Your task to perform on an android device: change your default location settings in chrome Image 0: 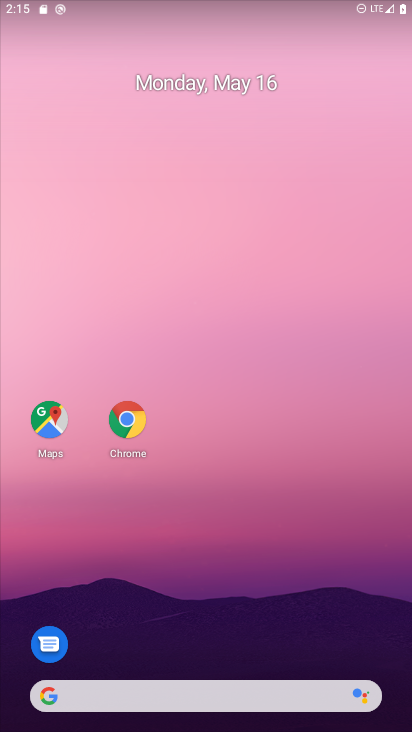
Step 0: drag from (185, 634) to (143, 153)
Your task to perform on an android device: change your default location settings in chrome Image 1: 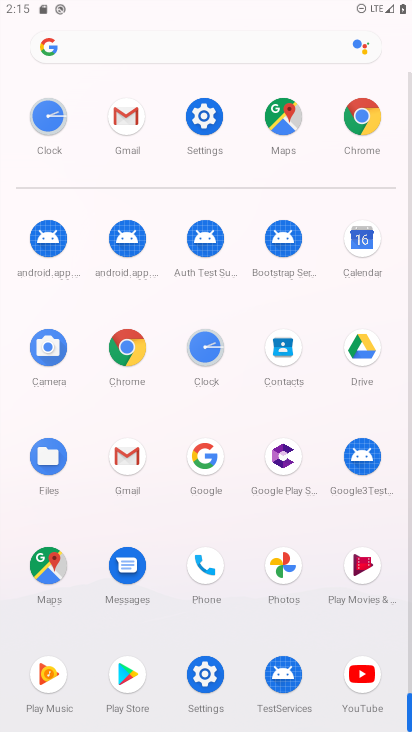
Step 1: click (132, 349)
Your task to perform on an android device: change your default location settings in chrome Image 2: 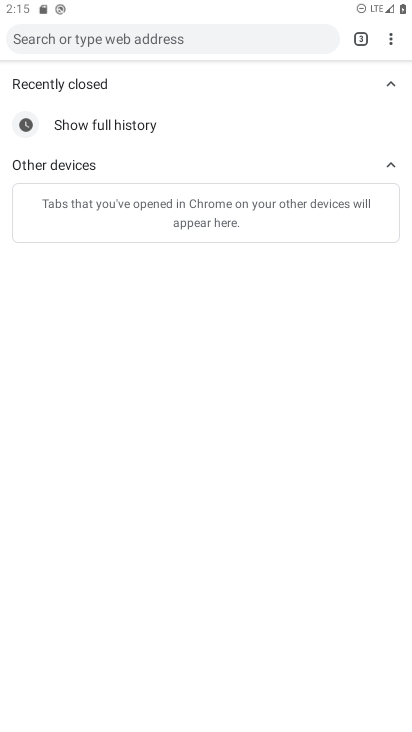
Step 2: click (387, 42)
Your task to perform on an android device: change your default location settings in chrome Image 3: 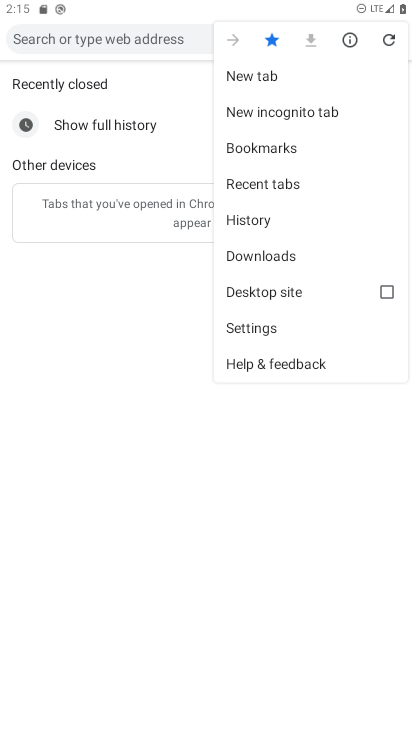
Step 3: click (311, 322)
Your task to perform on an android device: change your default location settings in chrome Image 4: 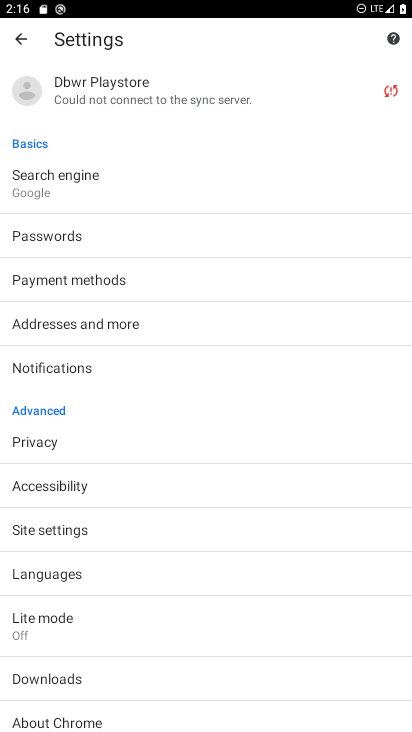
Step 4: click (126, 524)
Your task to perform on an android device: change your default location settings in chrome Image 5: 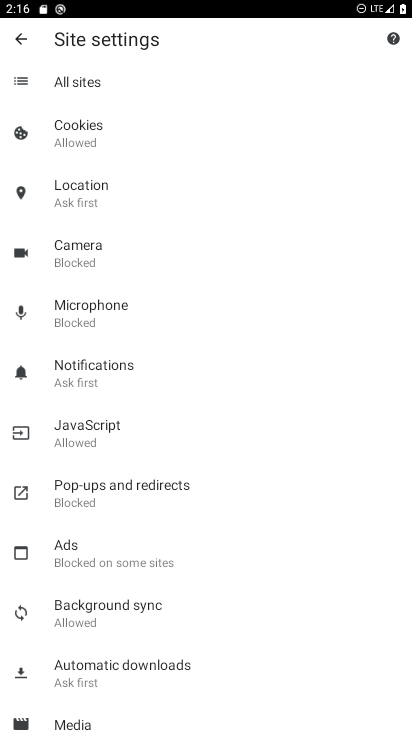
Step 5: click (133, 174)
Your task to perform on an android device: change your default location settings in chrome Image 6: 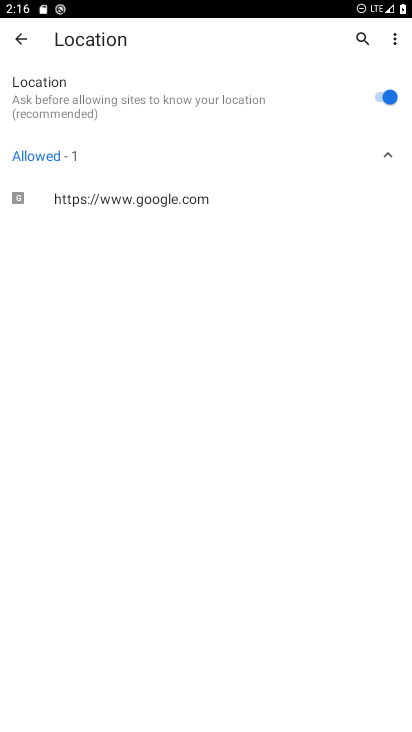
Step 6: click (397, 105)
Your task to perform on an android device: change your default location settings in chrome Image 7: 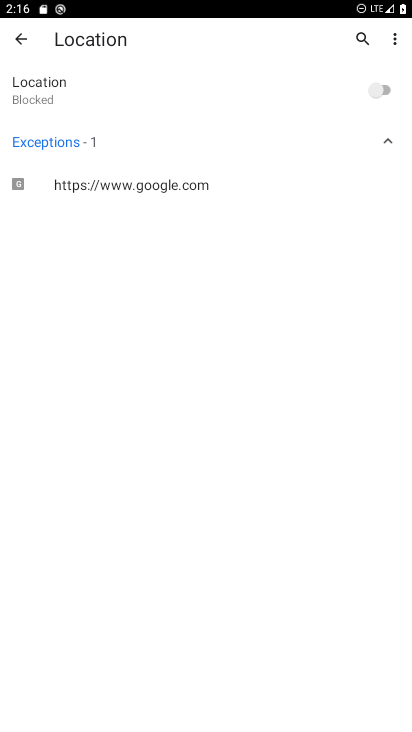
Step 7: task complete